Your task to perform on an android device: Go to Maps Image 0: 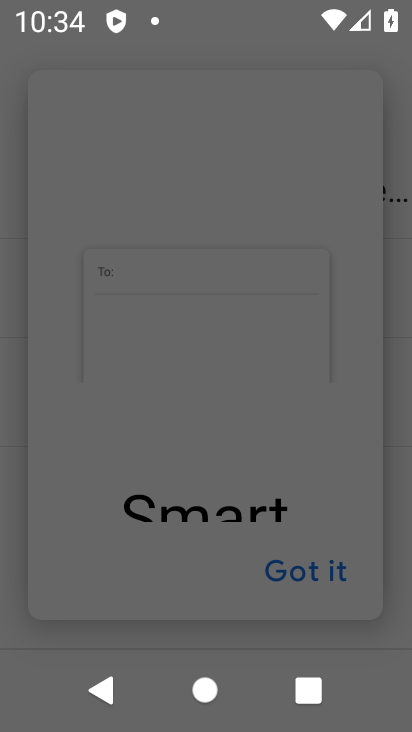
Step 0: press home button
Your task to perform on an android device: Go to Maps Image 1: 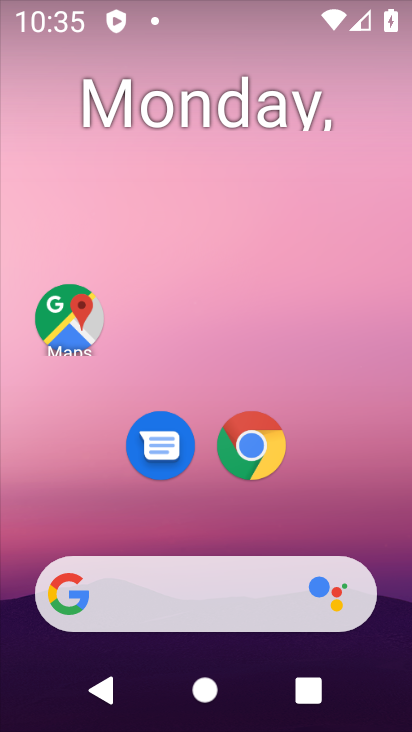
Step 1: click (70, 305)
Your task to perform on an android device: Go to Maps Image 2: 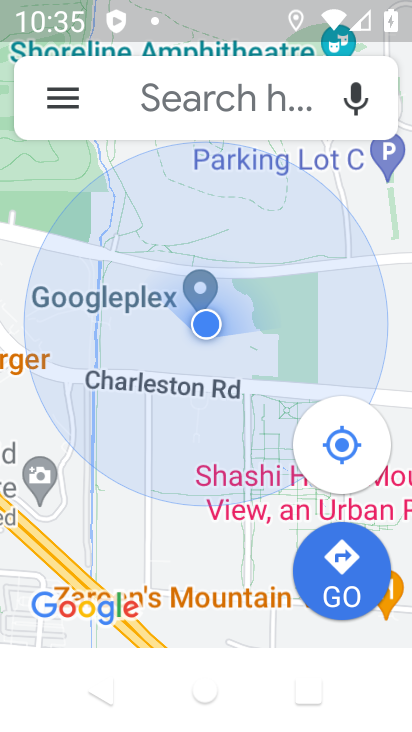
Step 2: task complete